Your task to perform on an android device: turn off javascript in the chrome app Image 0: 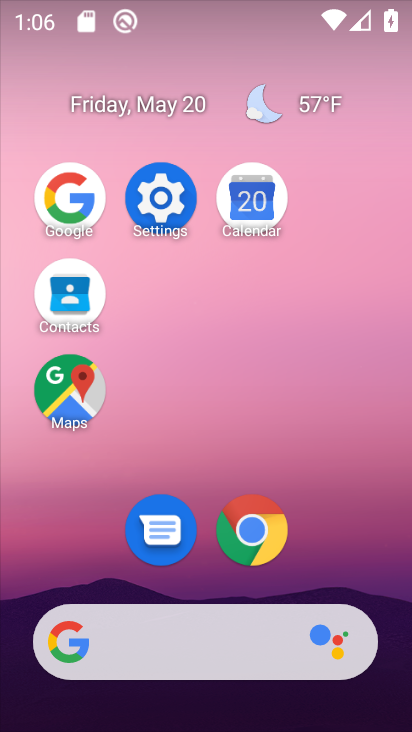
Step 0: click (279, 518)
Your task to perform on an android device: turn off javascript in the chrome app Image 1: 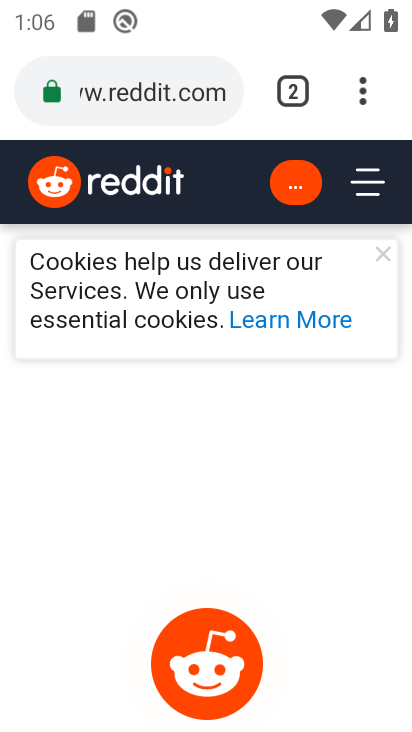
Step 1: click (355, 88)
Your task to perform on an android device: turn off javascript in the chrome app Image 2: 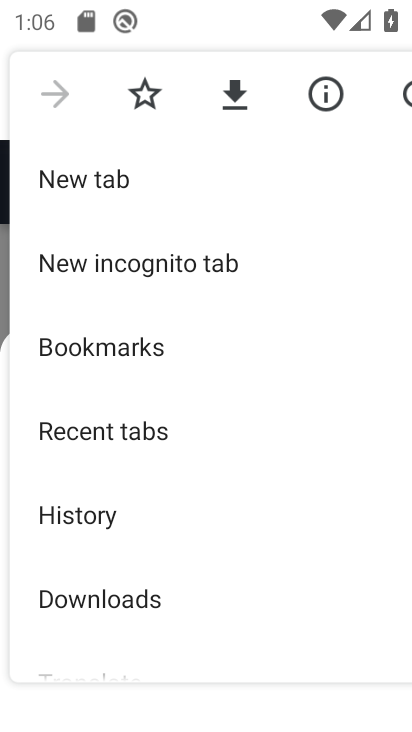
Step 2: drag from (272, 494) to (297, 92)
Your task to perform on an android device: turn off javascript in the chrome app Image 3: 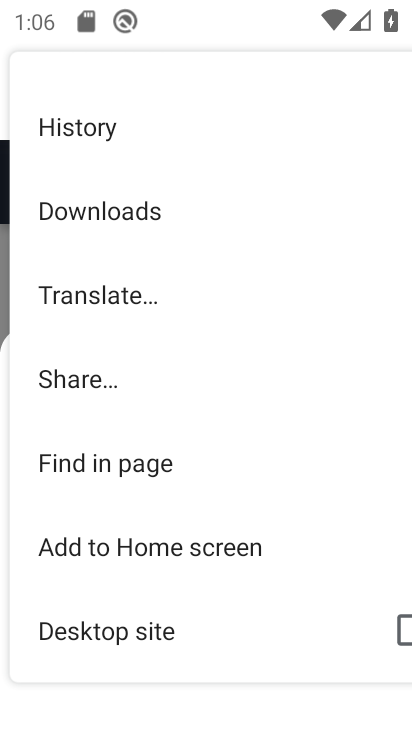
Step 3: drag from (163, 512) to (170, 170)
Your task to perform on an android device: turn off javascript in the chrome app Image 4: 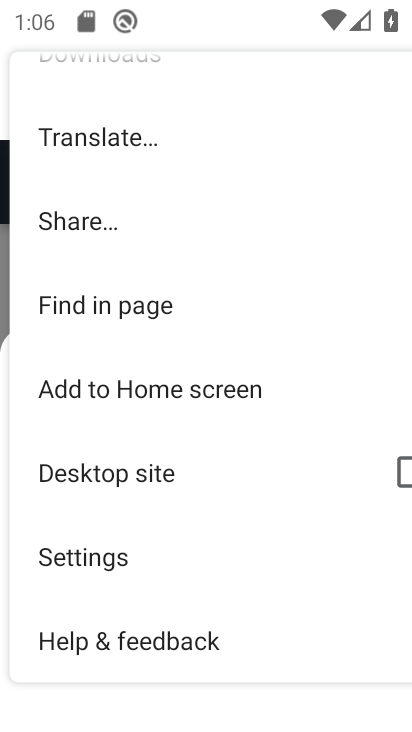
Step 4: click (155, 540)
Your task to perform on an android device: turn off javascript in the chrome app Image 5: 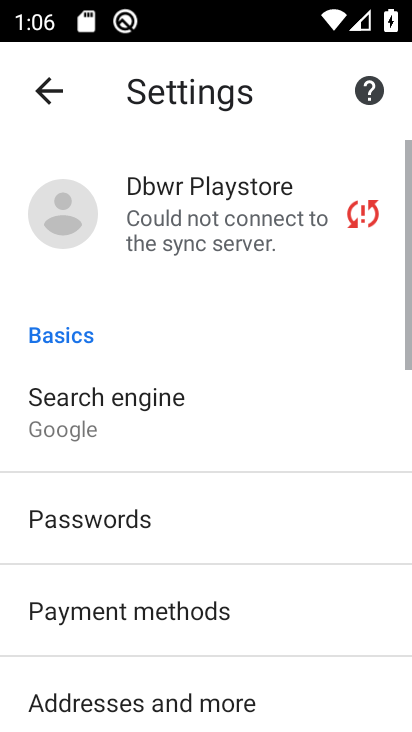
Step 5: drag from (156, 516) to (199, 142)
Your task to perform on an android device: turn off javascript in the chrome app Image 6: 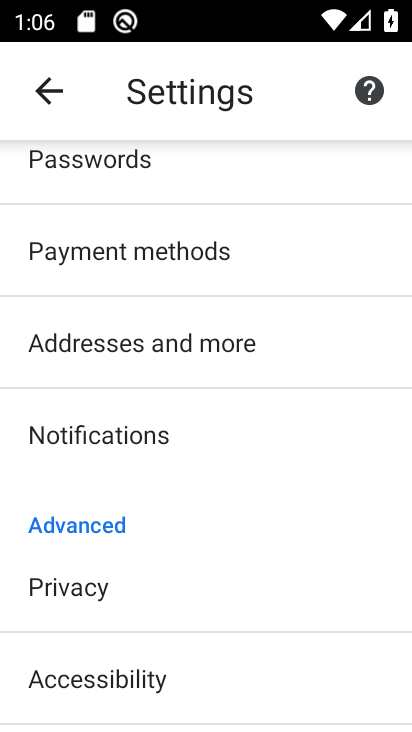
Step 6: drag from (199, 432) to (232, 173)
Your task to perform on an android device: turn off javascript in the chrome app Image 7: 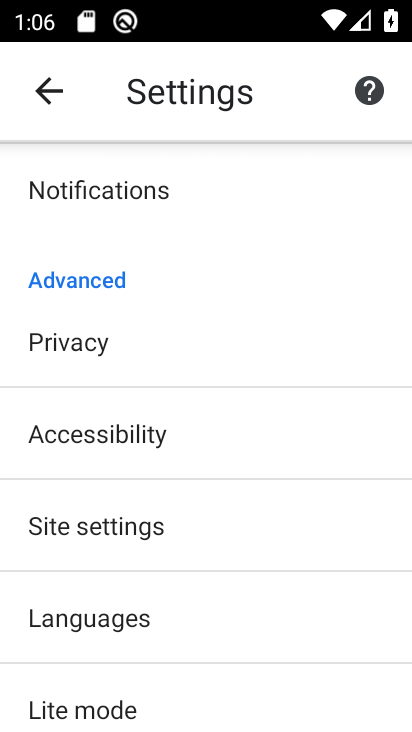
Step 7: click (179, 518)
Your task to perform on an android device: turn off javascript in the chrome app Image 8: 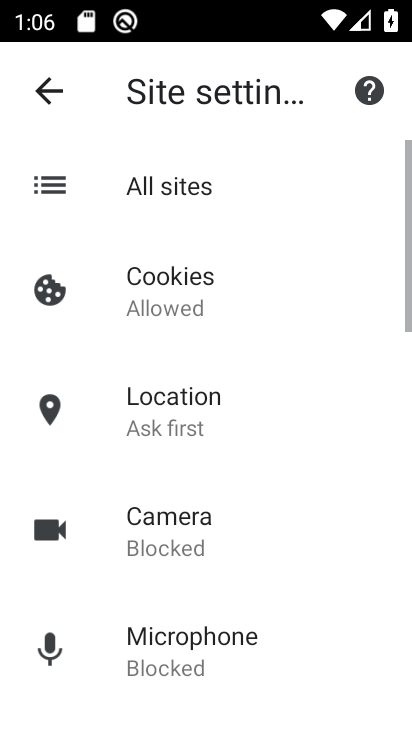
Step 8: drag from (179, 486) to (198, 146)
Your task to perform on an android device: turn off javascript in the chrome app Image 9: 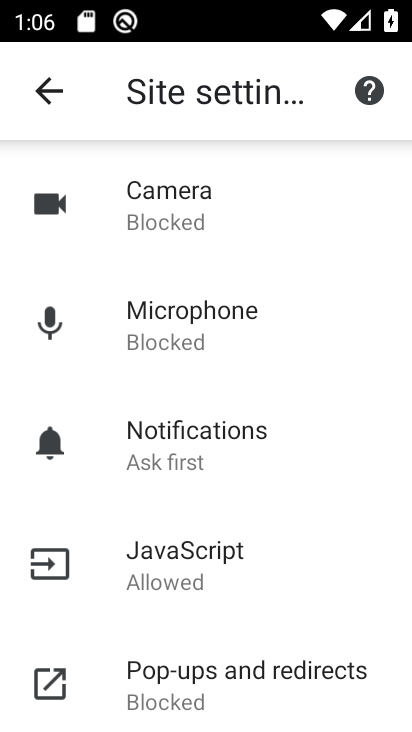
Step 9: click (184, 539)
Your task to perform on an android device: turn off javascript in the chrome app Image 10: 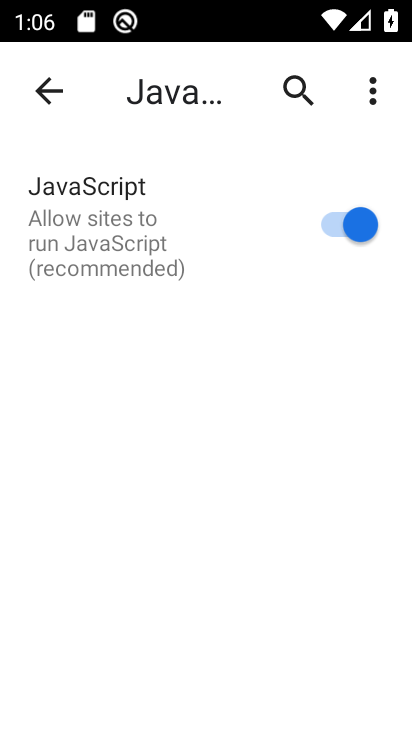
Step 10: click (352, 225)
Your task to perform on an android device: turn off javascript in the chrome app Image 11: 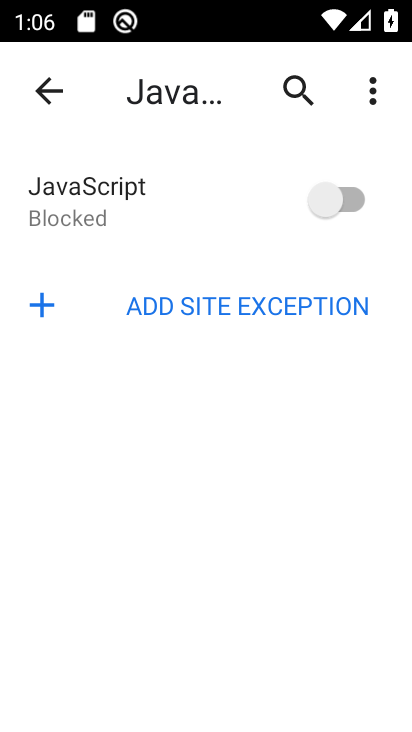
Step 11: task complete